Your task to perform on an android device: Do I have any events tomorrow? Image 0: 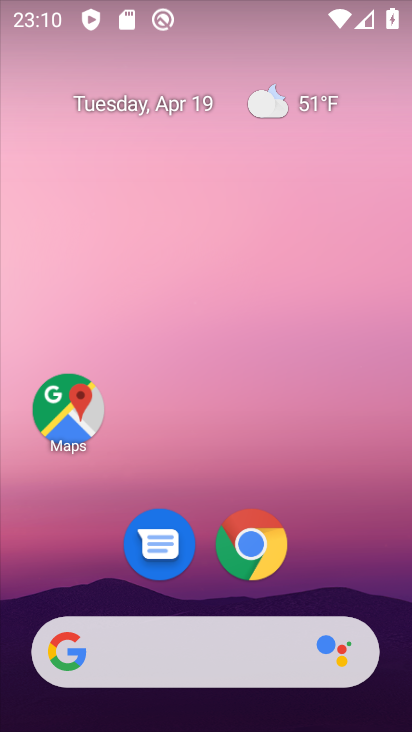
Step 0: drag from (321, 579) to (318, 266)
Your task to perform on an android device: Do I have any events tomorrow? Image 1: 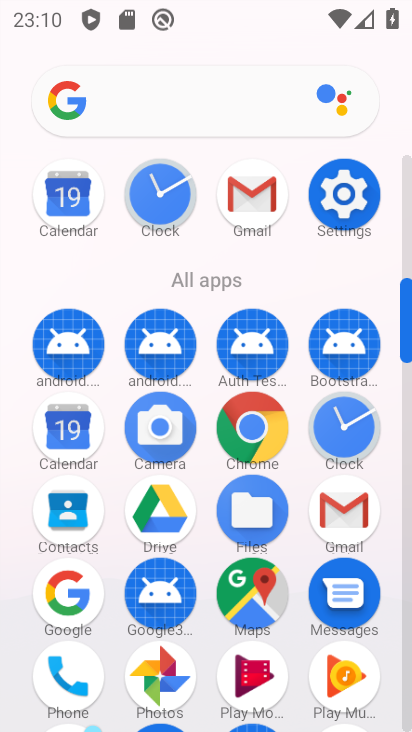
Step 1: click (63, 440)
Your task to perform on an android device: Do I have any events tomorrow? Image 2: 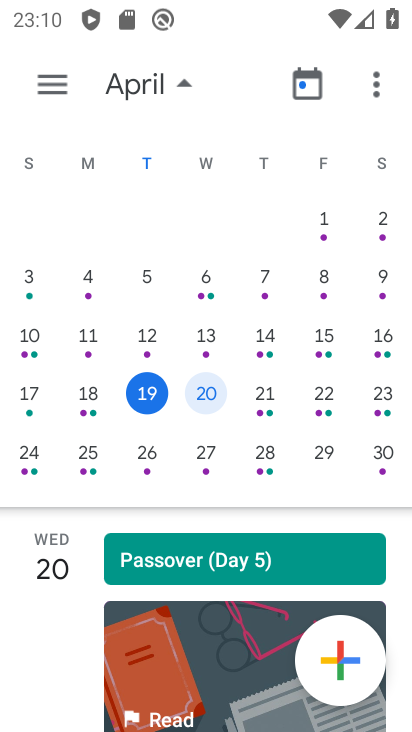
Step 2: click (207, 399)
Your task to perform on an android device: Do I have any events tomorrow? Image 3: 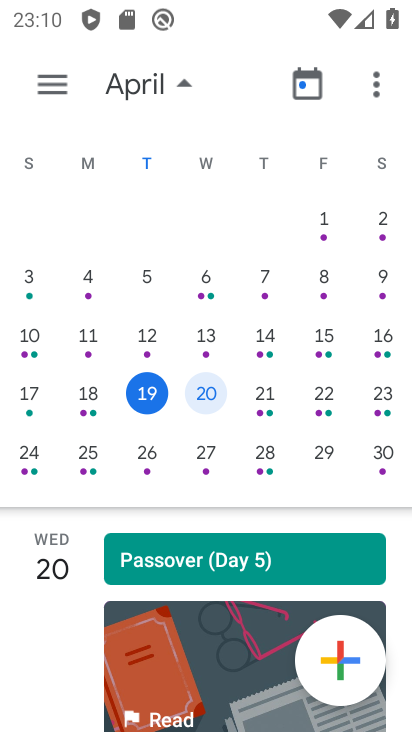
Step 3: click (210, 400)
Your task to perform on an android device: Do I have any events tomorrow? Image 4: 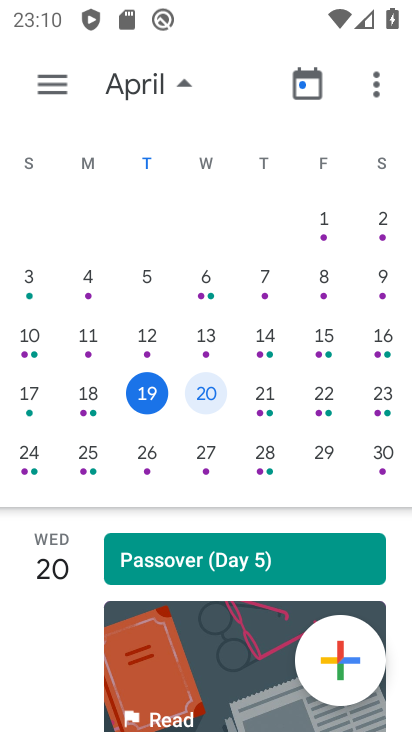
Step 4: task complete